Your task to perform on an android device: change the clock style Image 0: 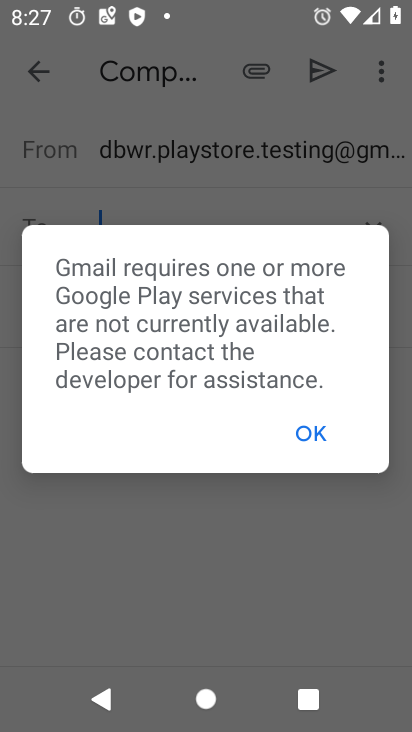
Step 0: press back button
Your task to perform on an android device: change the clock style Image 1: 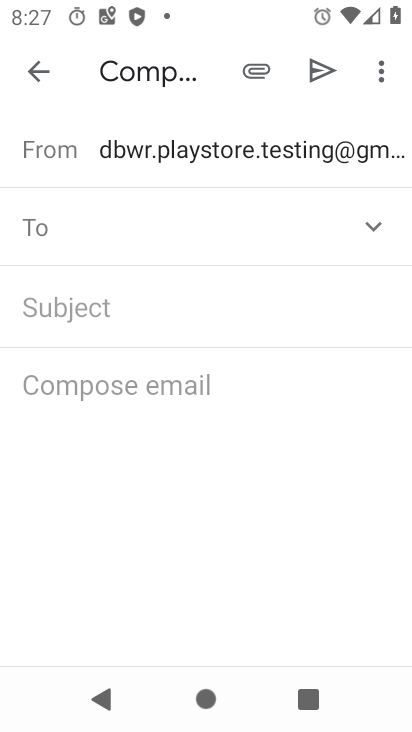
Step 1: press home button
Your task to perform on an android device: change the clock style Image 2: 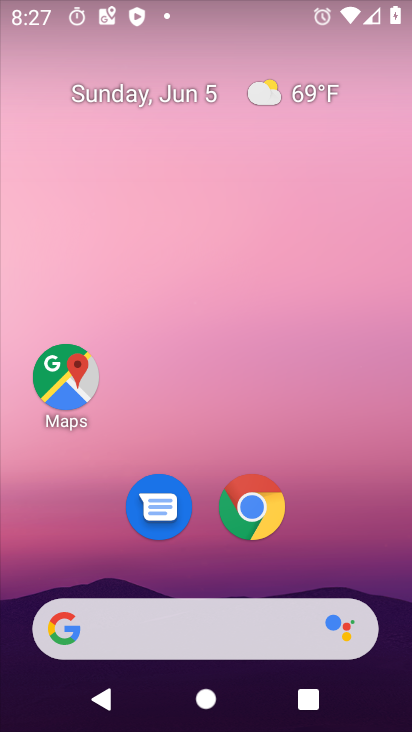
Step 2: drag from (332, 493) to (218, 9)
Your task to perform on an android device: change the clock style Image 3: 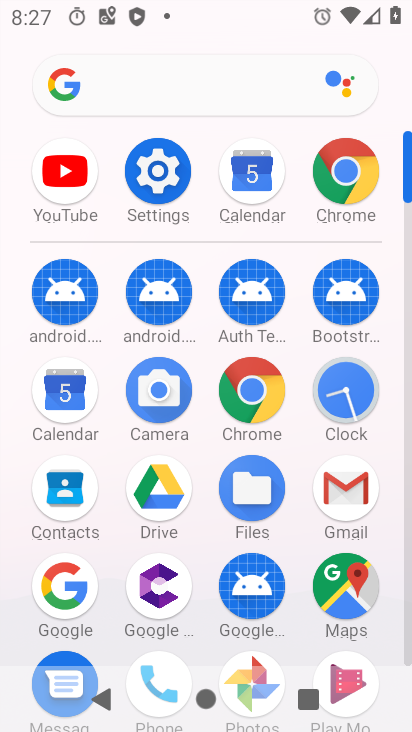
Step 3: click (342, 390)
Your task to perform on an android device: change the clock style Image 4: 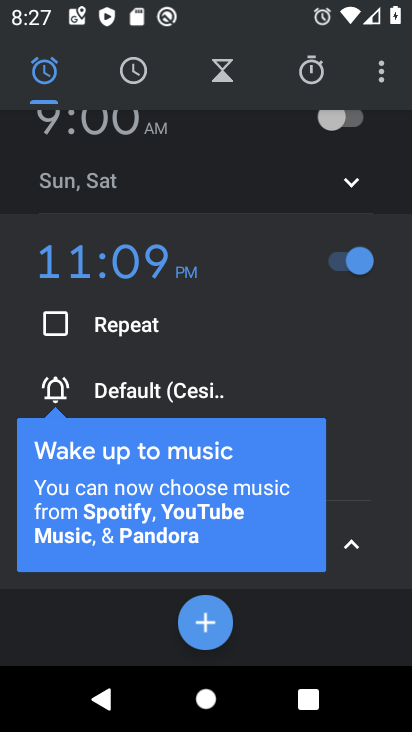
Step 4: drag from (377, 63) to (242, 140)
Your task to perform on an android device: change the clock style Image 5: 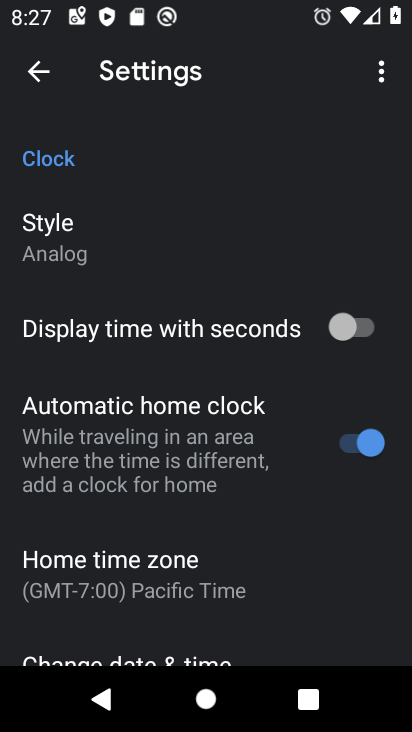
Step 5: click (108, 233)
Your task to perform on an android device: change the clock style Image 6: 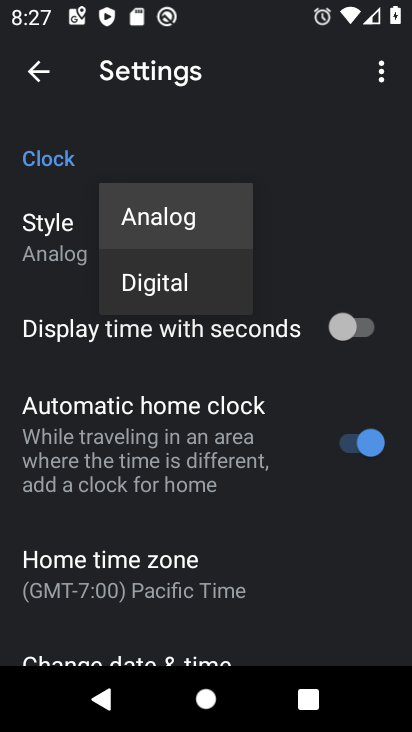
Step 6: click (164, 277)
Your task to perform on an android device: change the clock style Image 7: 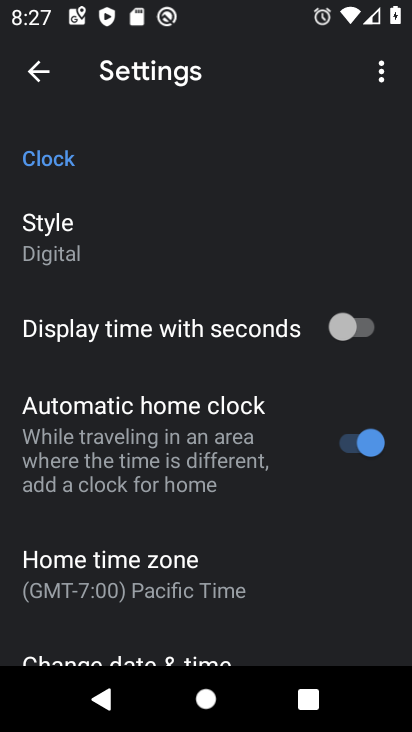
Step 7: task complete